Your task to perform on an android device: What's the weather today? Image 0: 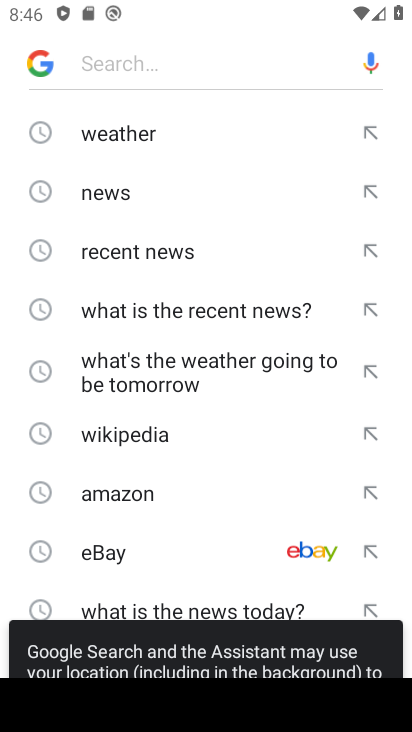
Step 0: click (155, 143)
Your task to perform on an android device: What's the weather today? Image 1: 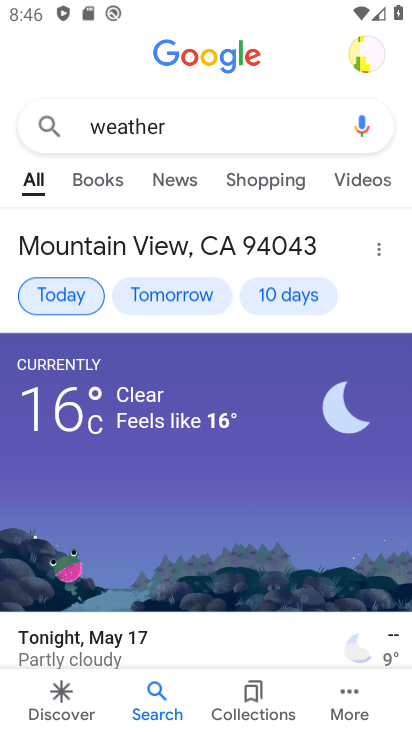
Step 1: task complete